Your task to perform on an android device: Open Reddit.com Image 0: 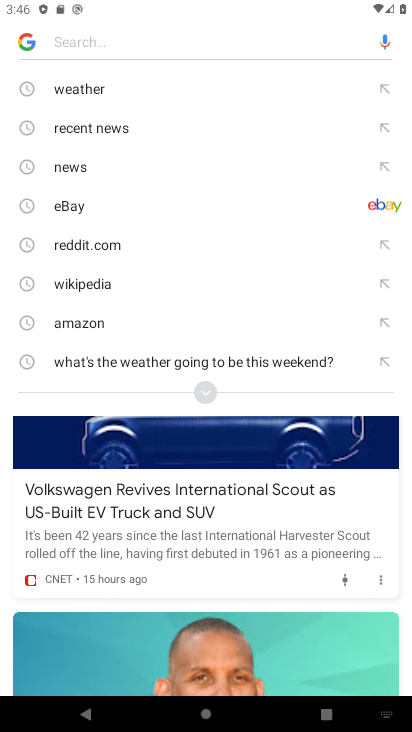
Step 0: press back button
Your task to perform on an android device: Open Reddit.com Image 1: 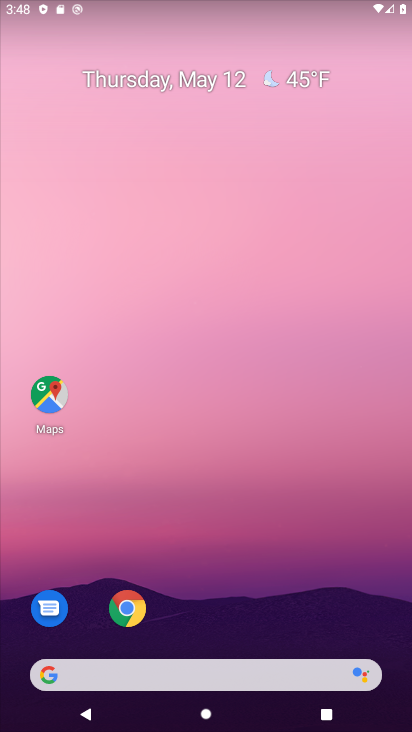
Step 1: click (118, 612)
Your task to perform on an android device: Open Reddit.com Image 2: 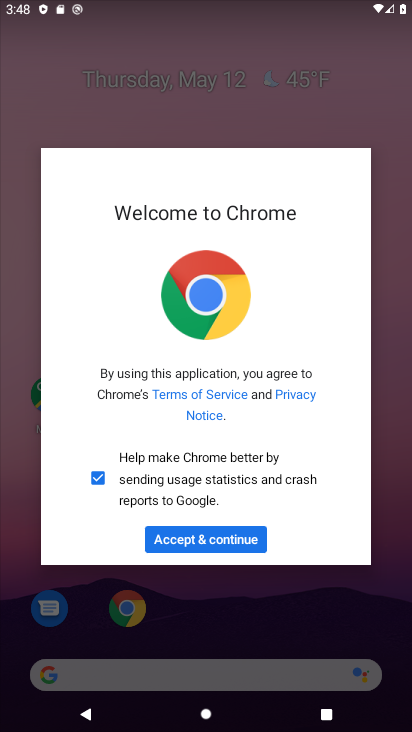
Step 2: click (167, 544)
Your task to perform on an android device: Open Reddit.com Image 3: 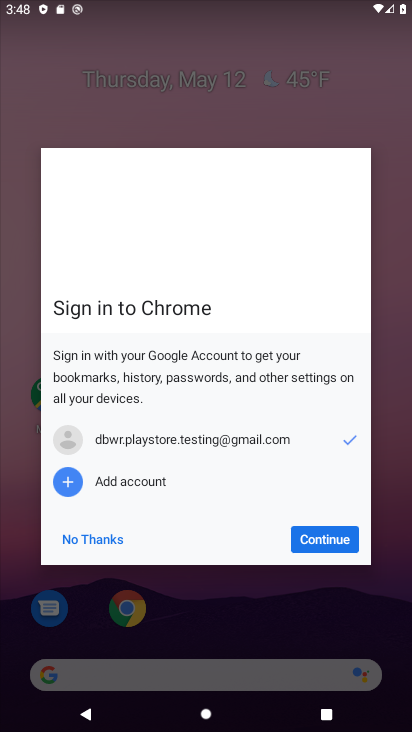
Step 3: click (316, 543)
Your task to perform on an android device: Open Reddit.com Image 4: 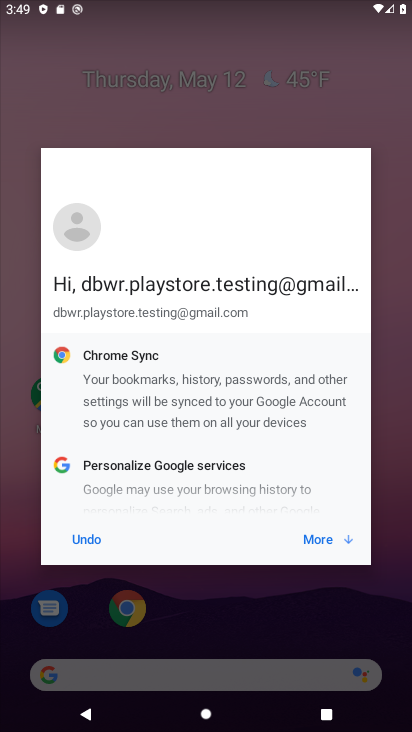
Step 4: click (316, 543)
Your task to perform on an android device: Open Reddit.com Image 5: 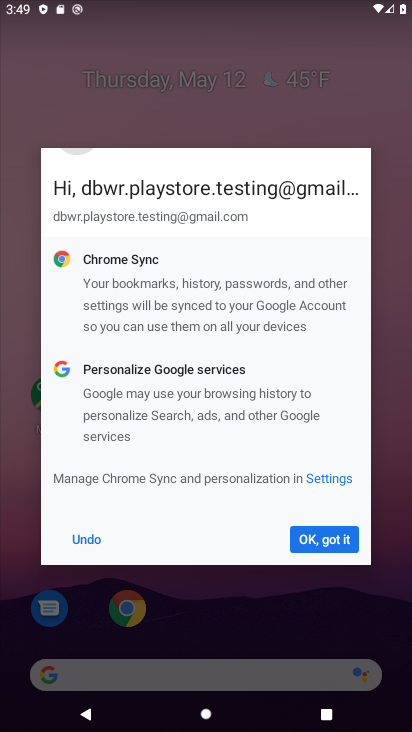
Step 5: click (316, 543)
Your task to perform on an android device: Open Reddit.com Image 6: 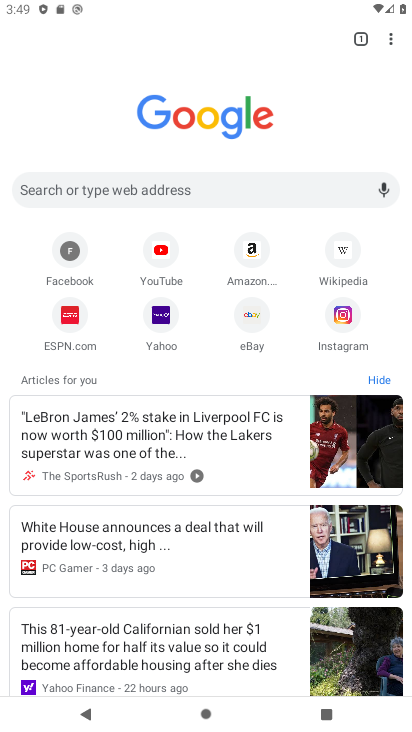
Step 6: click (162, 179)
Your task to perform on an android device: Open Reddit.com Image 7: 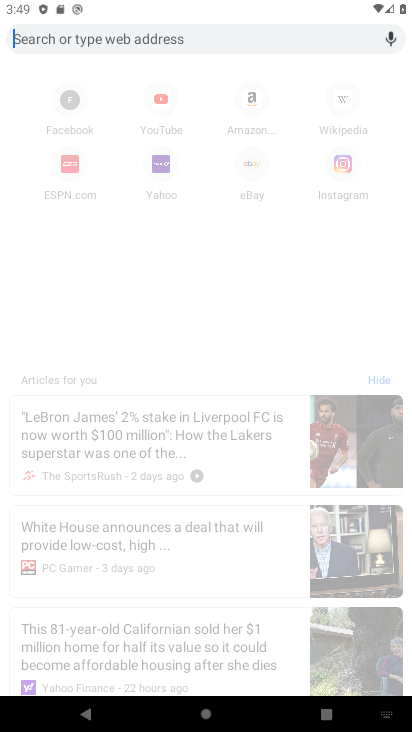
Step 7: type "reddit.ccom"
Your task to perform on an android device: Open Reddit.com Image 8: 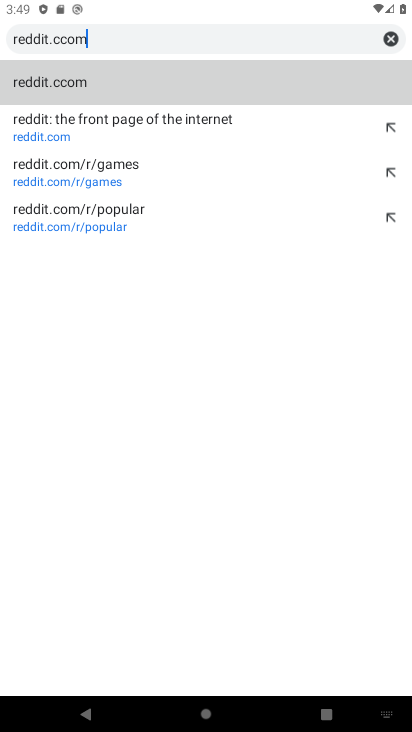
Step 8: click (293, 120)
Your task to perform on an android device: Open Reddit.com Image 9: 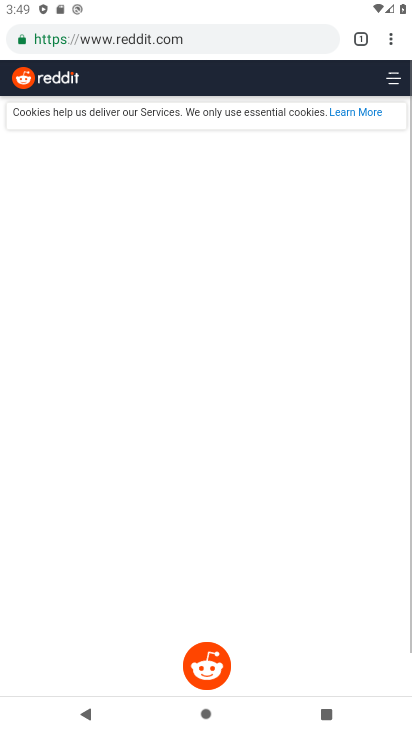
Step 9: task complete